Your task to perform on an android device: check google app version Image 0: 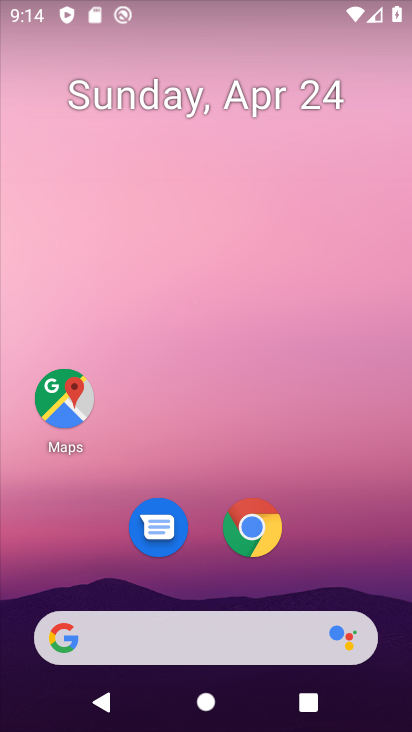
Step 0: drag from (168, 567) to (278, 146)
Your task to perform on an android device: check google app version Image 1: 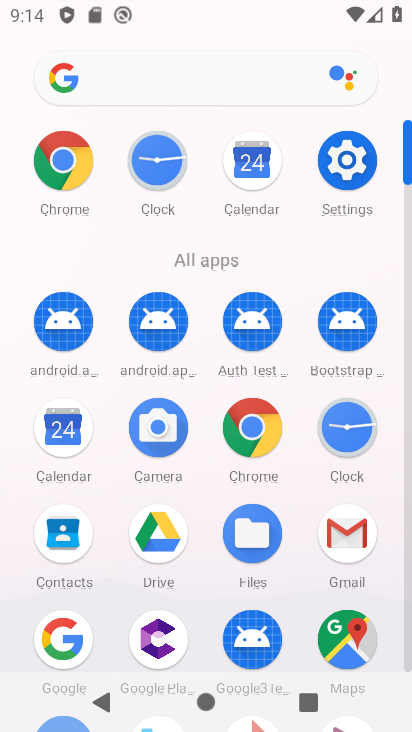
Step 1: click (68, 634)
Your task to perform on an android device: check google app version Image 2: 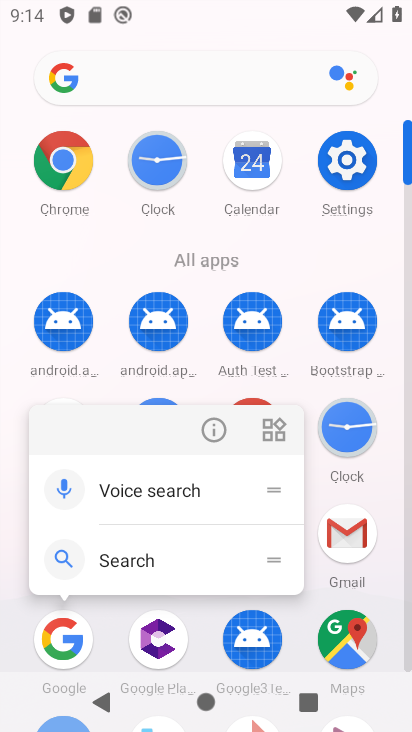
Step 2: click (36, 237)
Your task to perform on an android device: check google app version Image 3: 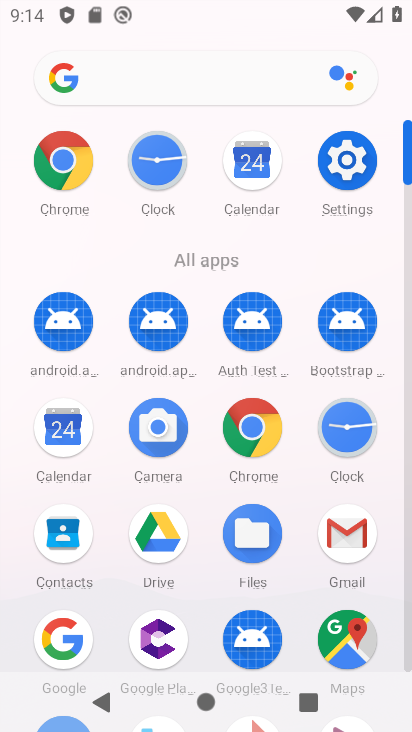
Step 3: click (52, 639)
Your task to perform on an android device: check google app version Image 4: 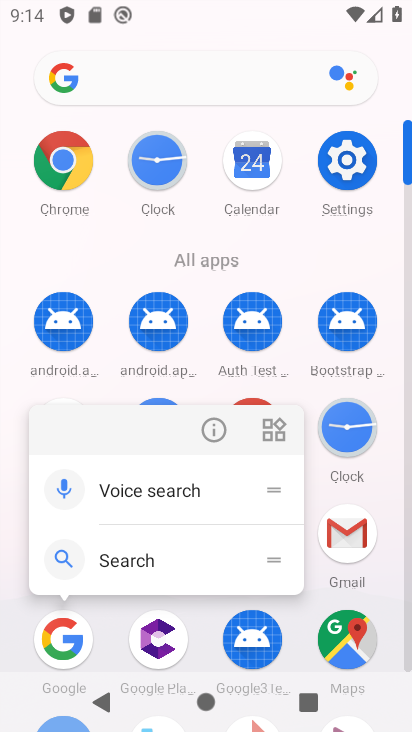
Step 4: click (216, 427)
Your task to perform on an android device: check google app version Image 5: 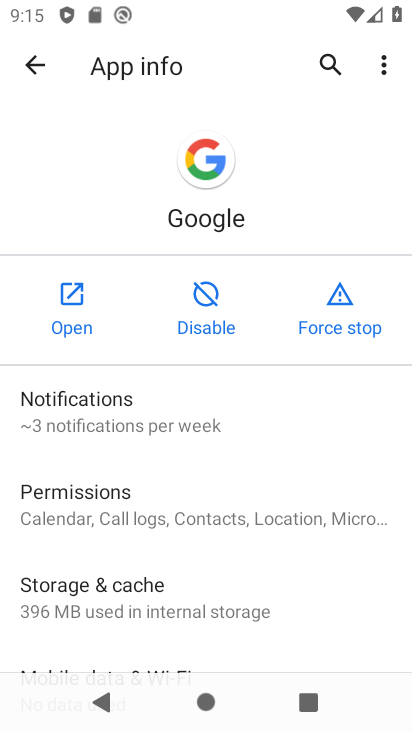
Step 5: drag from (192, 557) to (249, 101)
Your task to perform on an android device: check google app version Image 6: 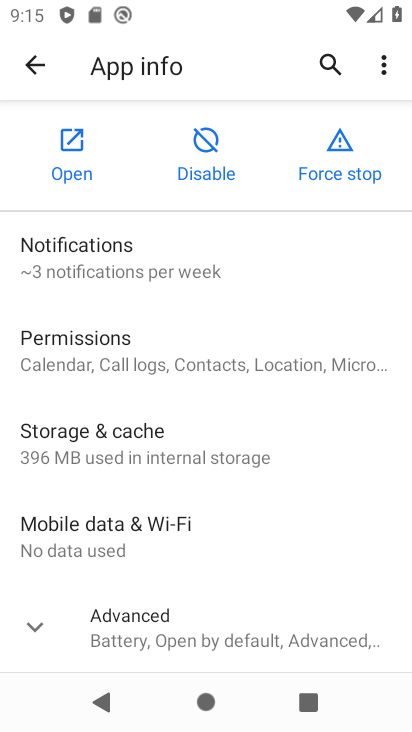
Step 6: drag from (216, 555) to (292, 215)
Your task to perform on an android device: check google app version Image 7: 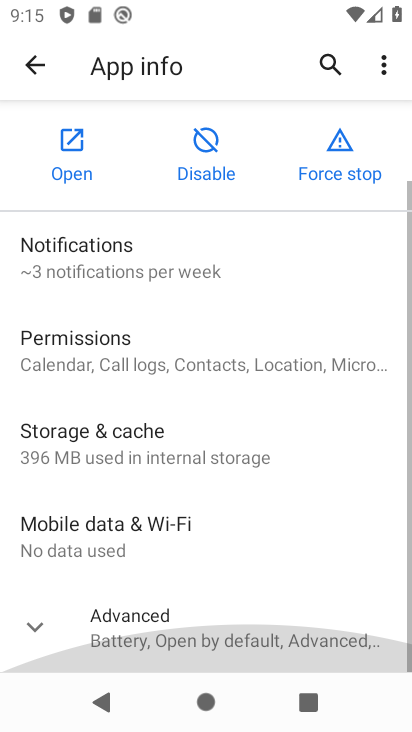
Step 7: click (163, 619)
Your task to perform on an android device: check google app version Image 8: 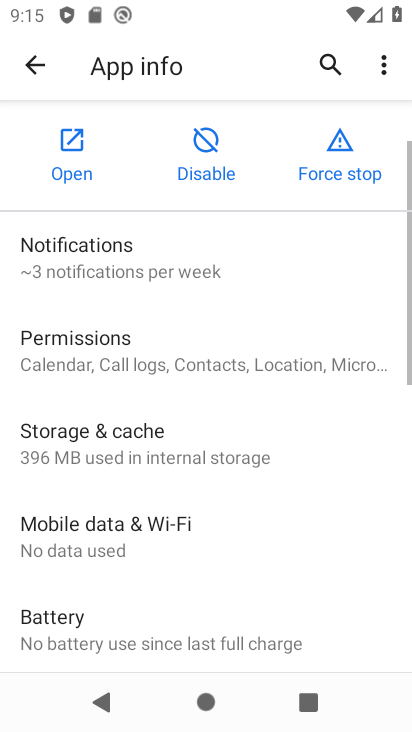
Step 8: task complete